Your task to perform on an android device: Go to Maps Image 0: 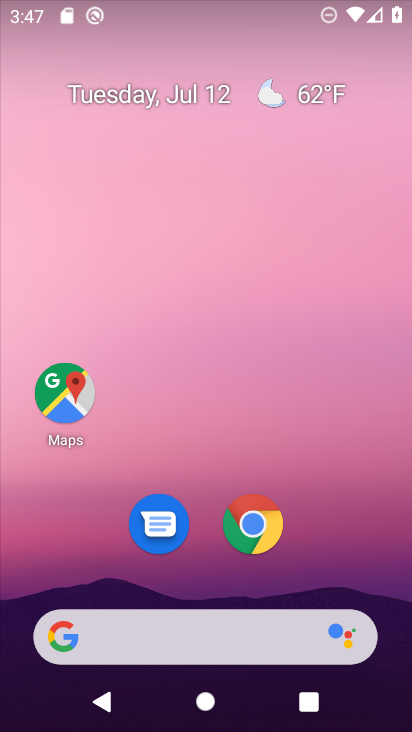
Step 0: click (74, 386)
Your task to perform on an android device: Go to Maps Image 1: 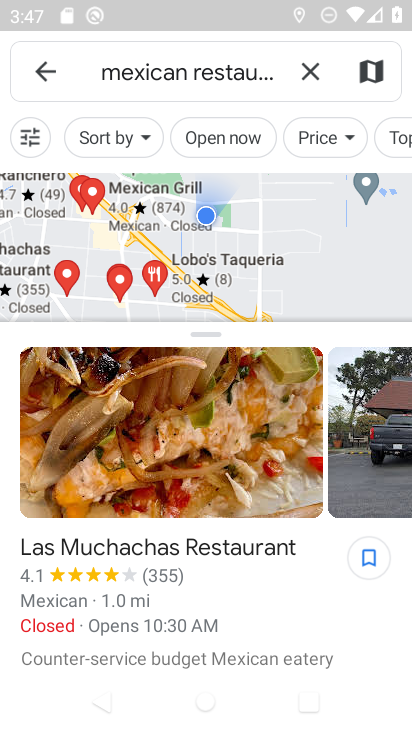
Step 1: click (309, 65)
Your task to perform on an android device: Go to Maps Image 2: 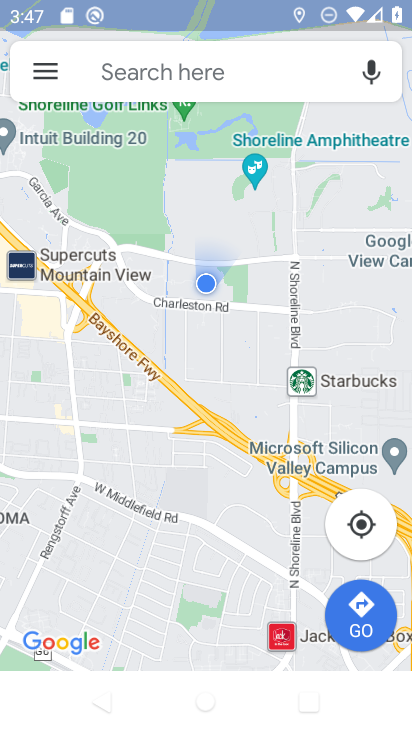
Step 2: task complete